Your task to perform on an android device: What's on my calendar tomorrow? Image 0: 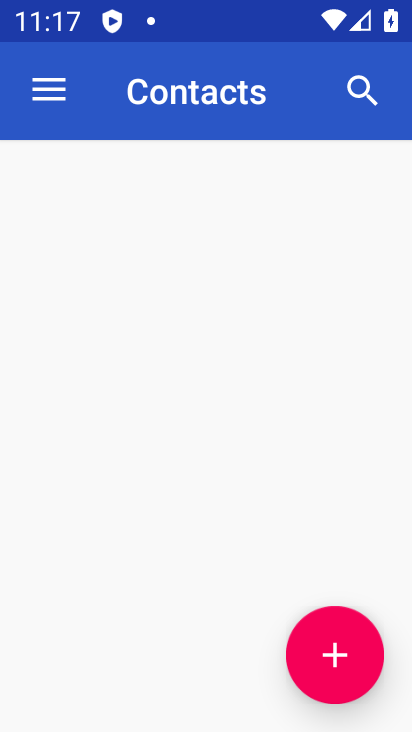
Step 0: drag from (383, 630) to (311, 383)
Your task to perform on an android device: What's on my calendar tomorrow? Image 1: 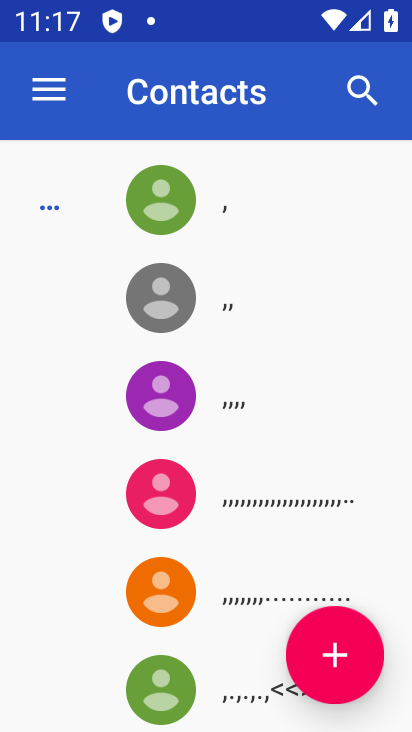
Step 1: press home button
Your task to perform on an android device: What's on my calendar tomorrow? Image 2: 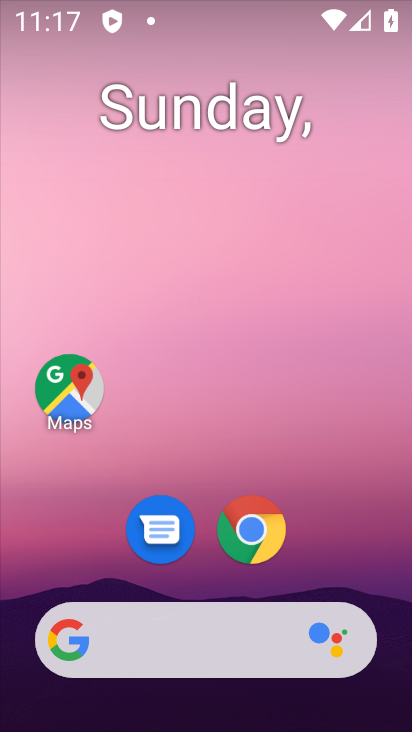
Step 2: drag from (333, 480) to (236, 57)
Your task to perform on an android device: What's on my calendar tomorrow? Image 3: 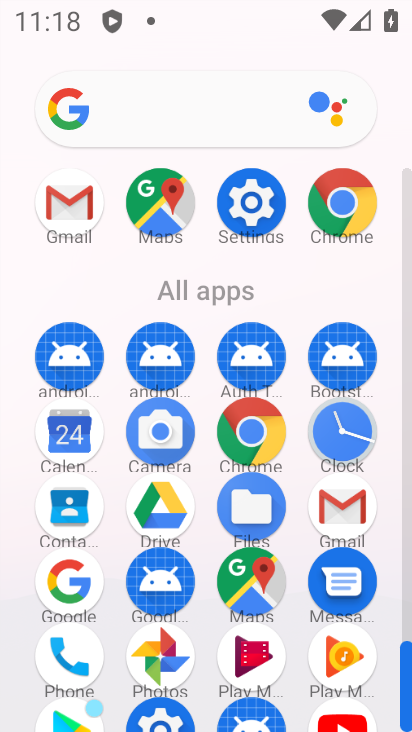
Step 3: click (63, 444)
Your task to perform on an android device: What's on my calendar tomorrow? Image 4: 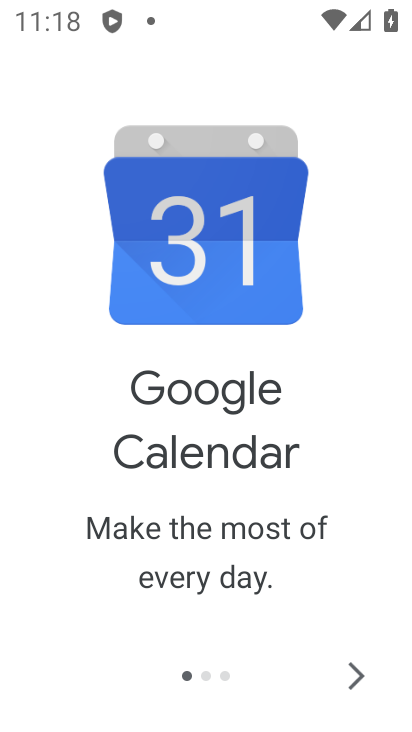
Step 4: click (356, 680)
Your task to perform on an android device: What's on my calendar tomorrow? Image 5: 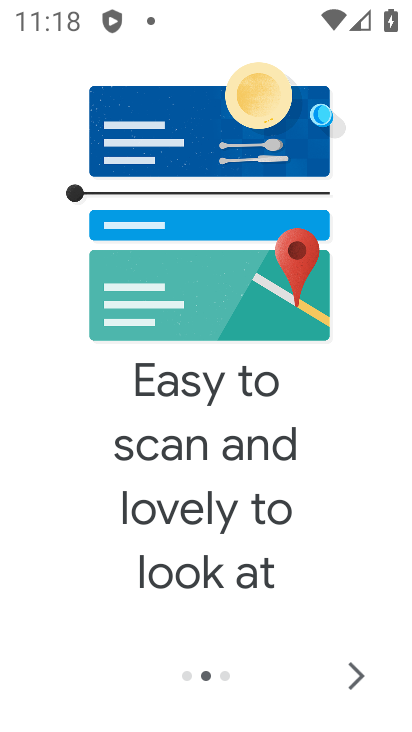
Step 5: click (356, 680)
Your task to perform on an android device: What's on my calendar tomorrow? Image 6: 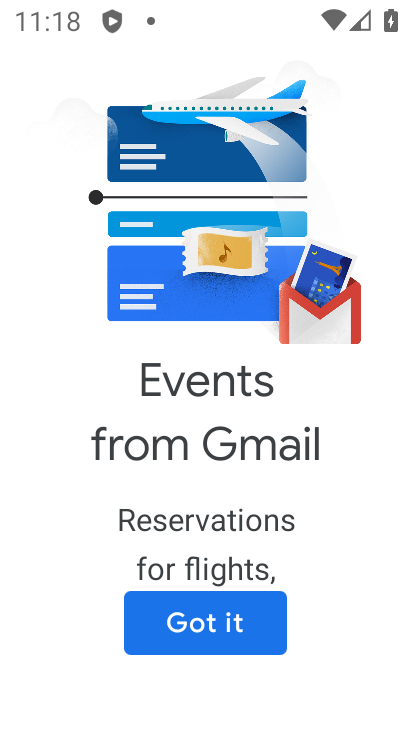
Step 6: click (198, 589)
Your task to perform on an android device: What's on my calendar tomorrow? Image 7: 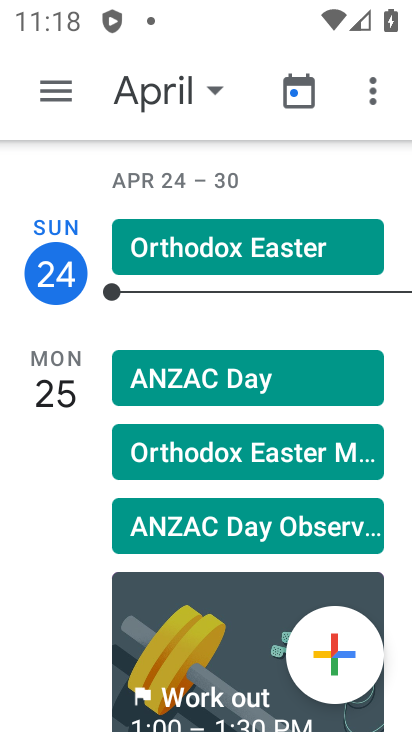
Step 7: click (42, 88)
Your task to perform on an android device: What's on my calendar tomorrow? Image 8: 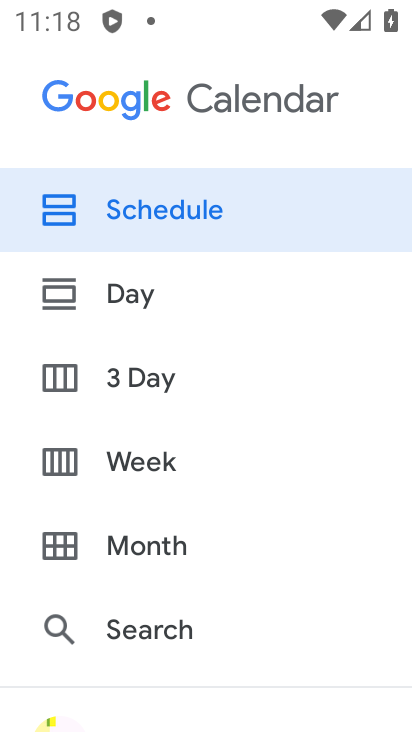
Step 8: click (152, 192)
Your task to perform on an android device: What's on my calendar tomorrow? Image 9: 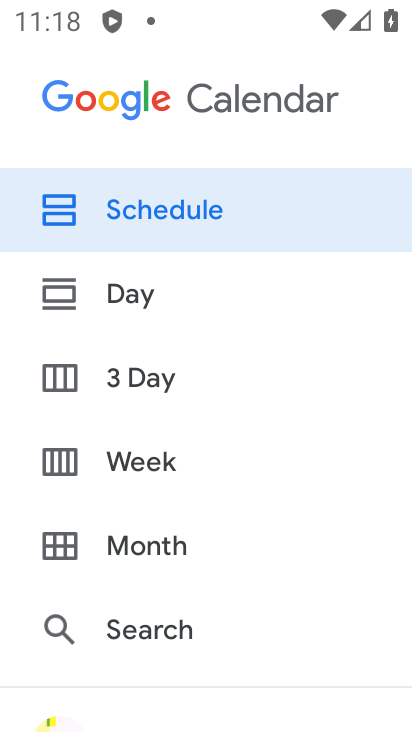
Step 9: click (152, 192)
Your task to perform on an android device: What's on my calendar tomorrow? Image 10: 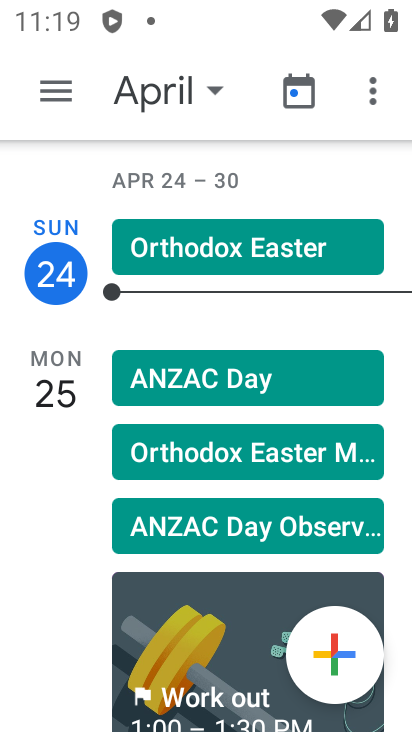
Step 10: drag from (45, 636) to (165, 183)
Your task to perform on an android device: What's on my calendar tomorrow? Image 11: 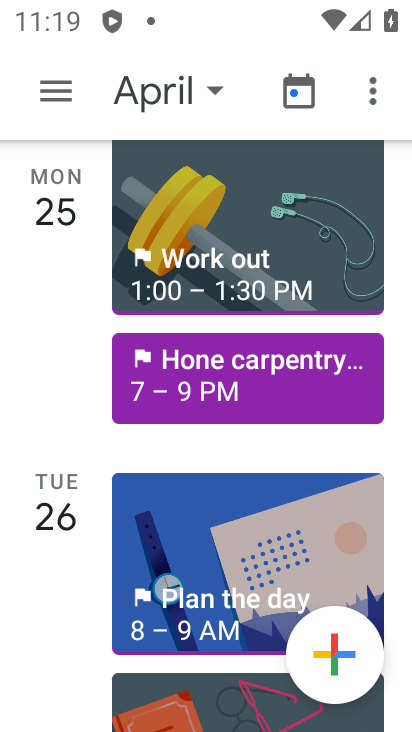
Step 11: click (197, 561)
Your task to perform on an android device: What's on my calendar tomorrow? Image 12: 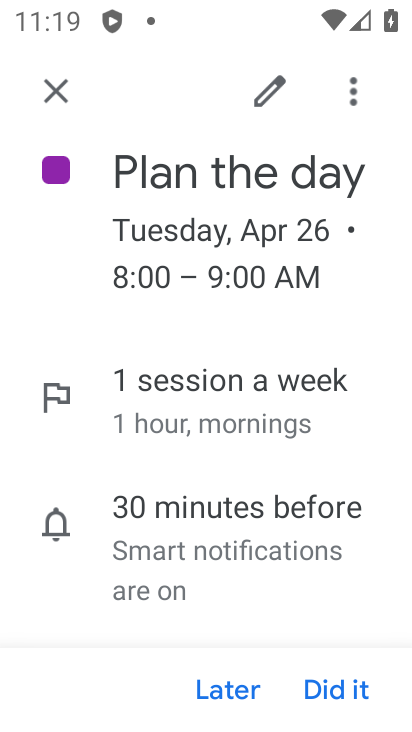
Step 12: task complete